Your task to perform on an android device: Open Wikipedia Image 0: 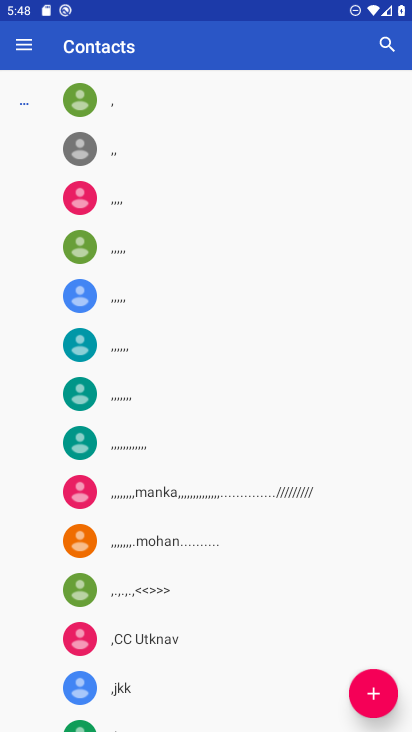
Step 0: press home button
Your task to perform on an android device: Open Wikipedia Image 1: 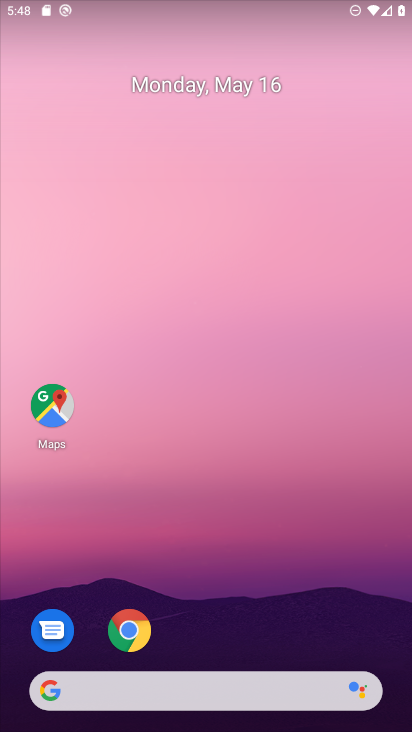
Step 1: drag from (320, 585) to (357, 76)
Your task to perform on an android device: Open Wikipedia Image 2: 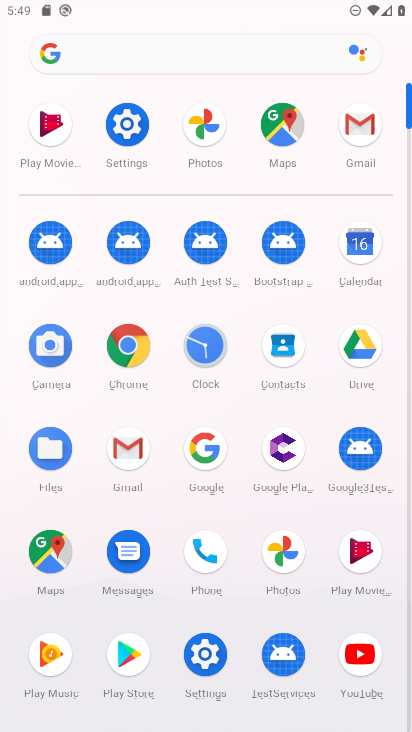
Step 2: click (275, 134)
Your task to perform on an android device: Open Wikipedia Image 3: 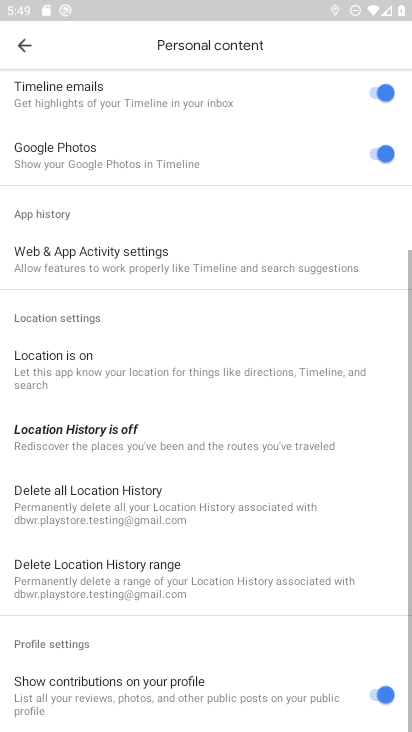
Step 3: press home button
Your task to perform on an android device: Open Wikipedia Image 4: 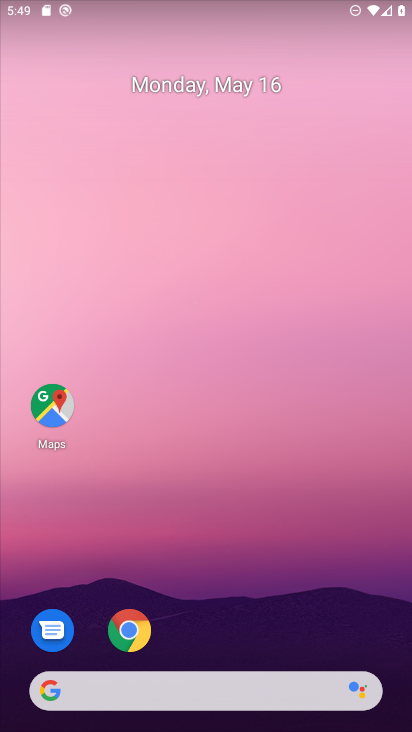
Step 4: click (125, 633)
Your task to perform on an android device: Open Wikipedia Image 5: 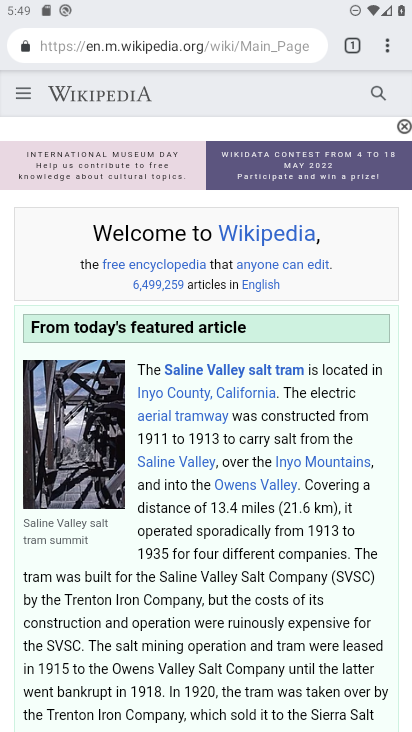
Step 5: task complete